Your task to perform on an android device: Open Google Maps Image 0: 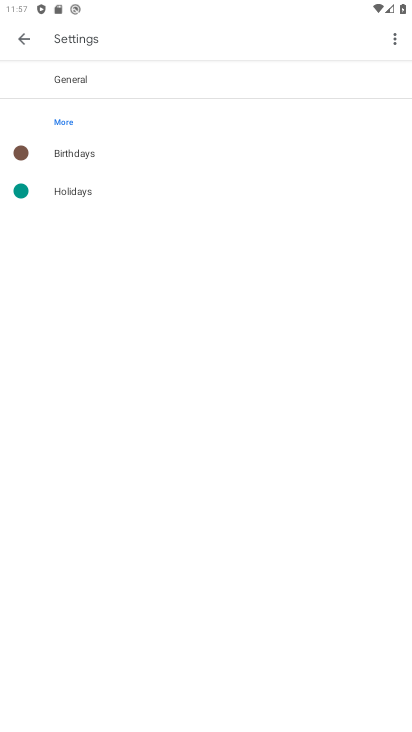
Step 0: press home button
Your task to perform on an android device: Open Google Maps Image 1: 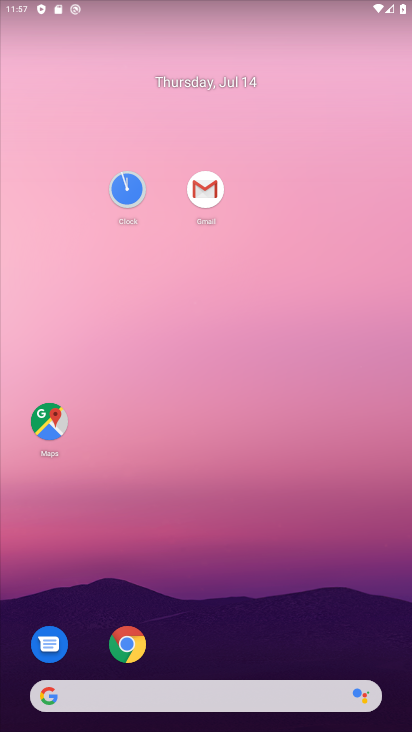
Step 1: click (63, 423)
Your task to perform on an android device: Open Google Maps Image 2: 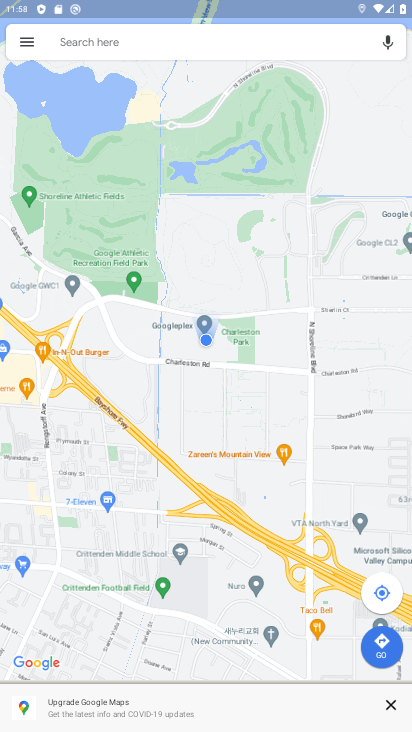
Step 2: task complete